Your task to perform on an android device: When is my next meeting? Image 0: 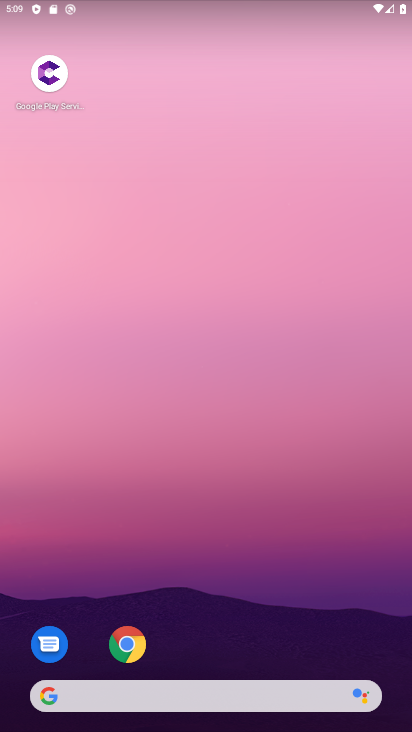
Step 0: drag from (288, 638) to (269, 251)
Your task to perform on an android device: When is my next meeting? Image 1: 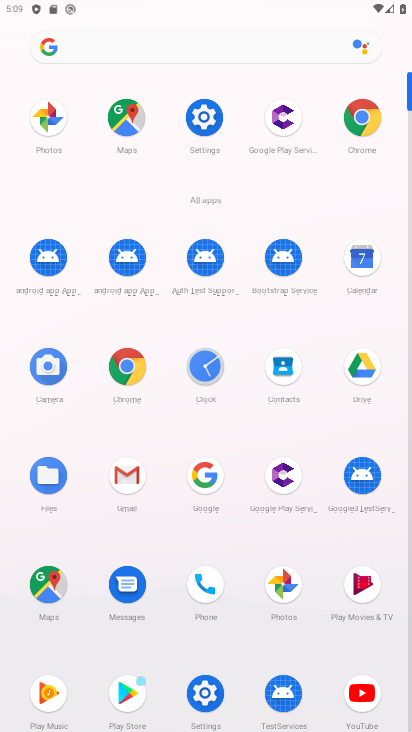
Step 1: click (366, 262)
Your task to perform on an android device: When is my next meeting? Image 2: 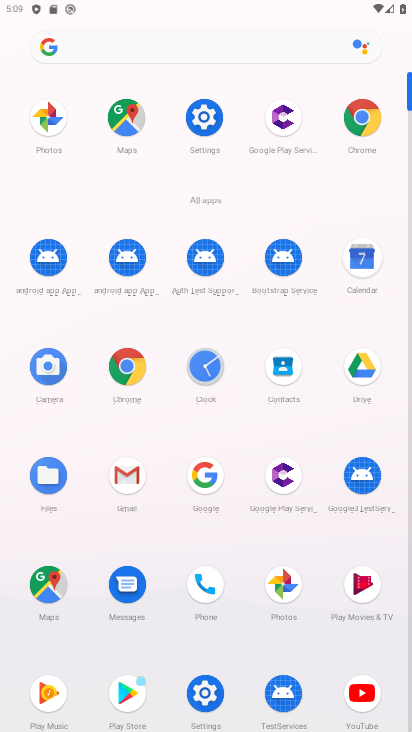
Step 2: click (366, 262)
Your task to perform on an android device: When is my next meeting? Image 3: 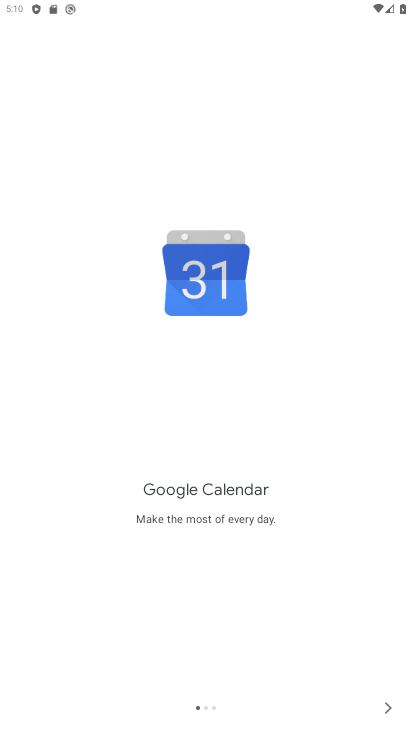
Step 3: click (386, 708)
Your task to perform on an android device: When is my next meeting? Image 4: 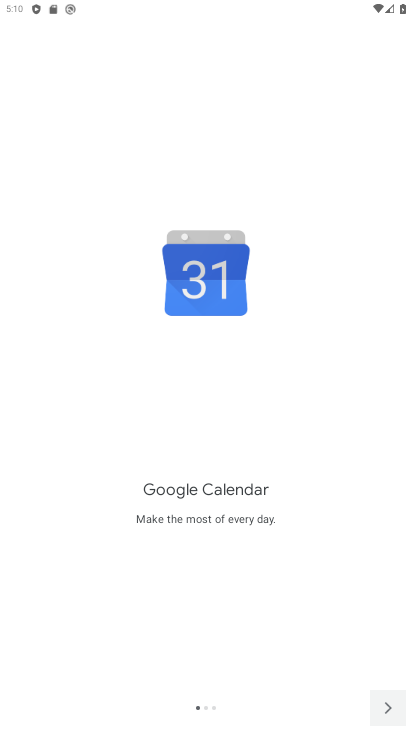
Step 4: click (387, 707)
Your task to perform on an android device: When is my next meeting? Image 5: 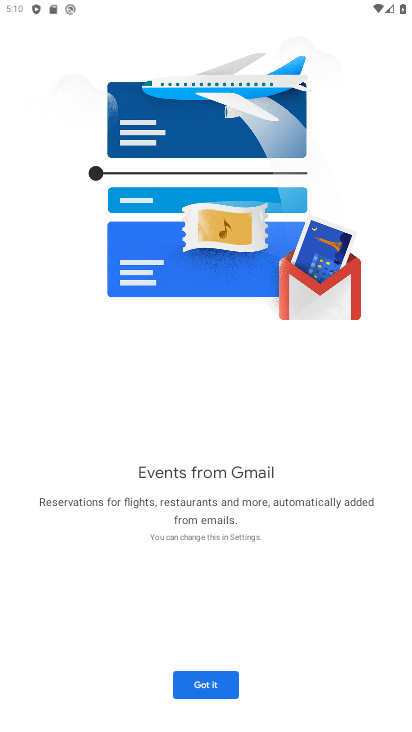
Step 5: click (383, 720)
Your task to perform on an android device: When is my next meeting? Image 6: 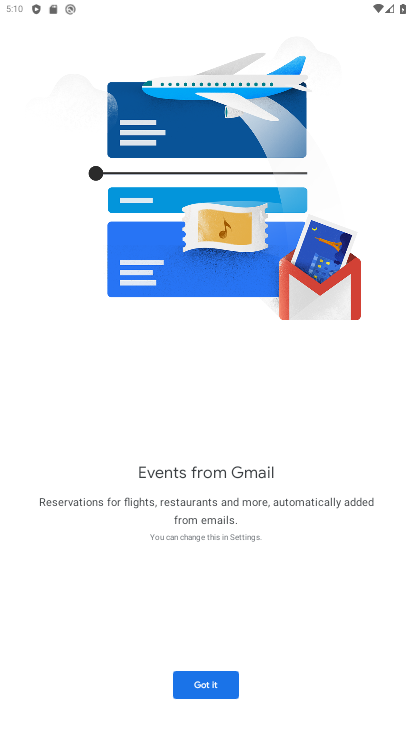
Step 6: click (208, 684)
Your task to perform on an android device: When is my next meeting? Image 7: 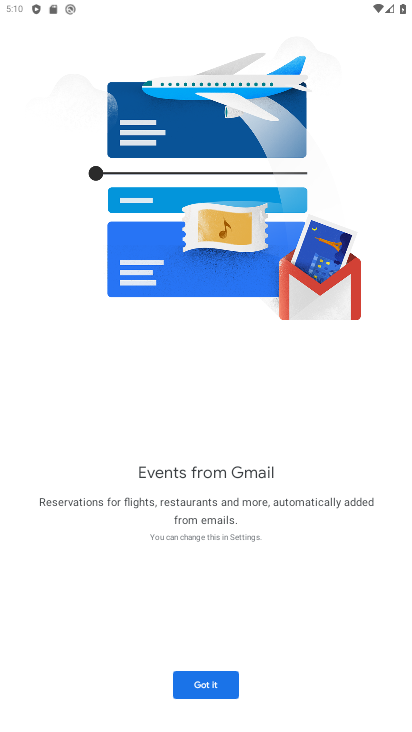
Step 7: click (208, 684)
Your task to perform on an android device: When is my next meeting? Image 8: 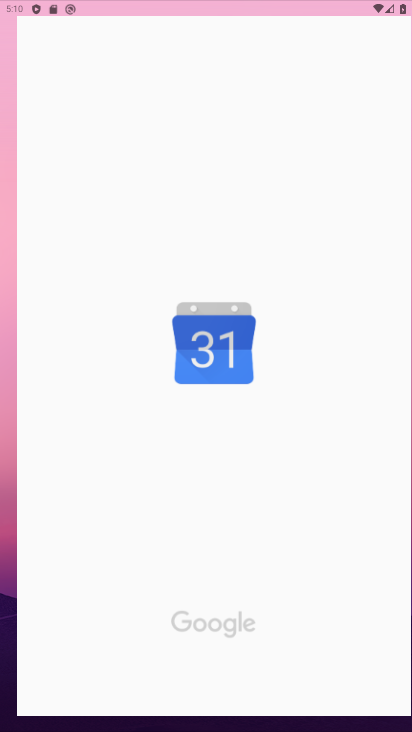
Step 8: click (212, 679)
Your task to perform on an android device: When is my next meeting? Image 9: 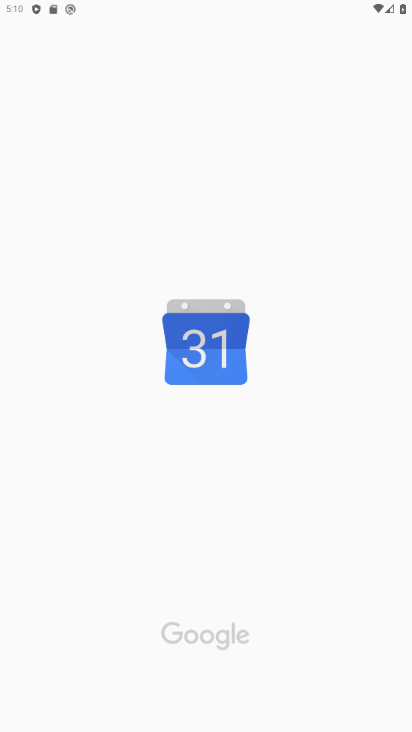
Step 9: click (212, 679)
Your task to perform on an android device: When is my next meeting? Image 10: 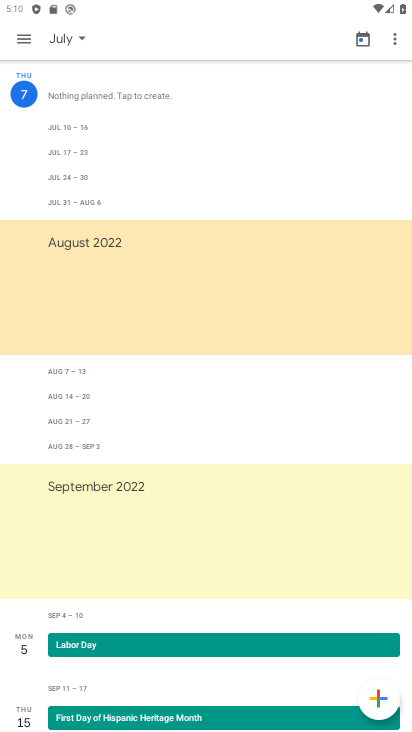
Step 10: task complete